Your task to perform on an android device: Open Google Chrome and open the bookmarks view Image 0: 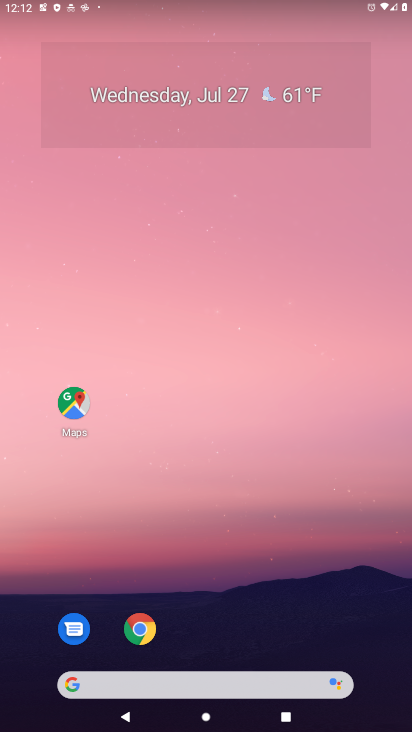
Step 0: click (186, 654)
Your task to perform on an android device: Open Google Chrome and open the bookmarks view Image 1: 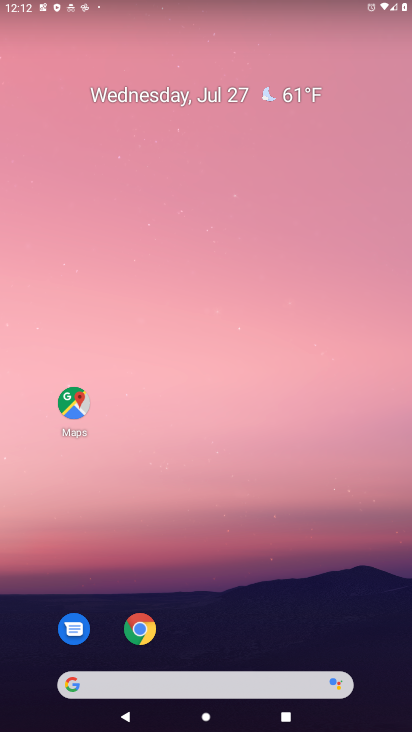
Step 1: drag from (186, 654) to (206, 82)
Your task to perform on an android device: Open Google Chrome and open the bookmarks view Image 2: 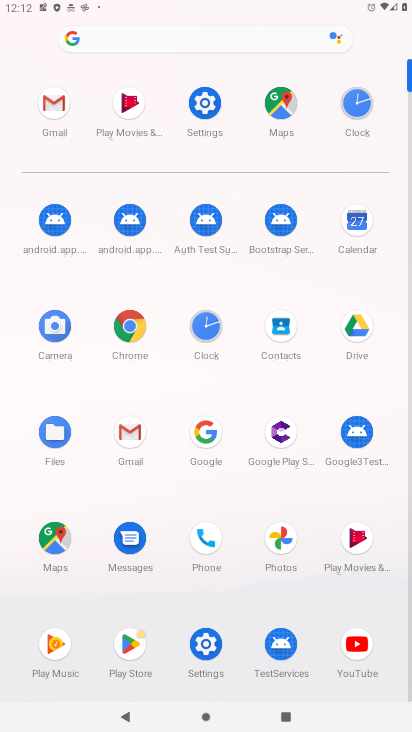
Step 2: click (143, 331)
Your task to perform on an android device: Open Google Chrome and open the bookmarks view Image 3: 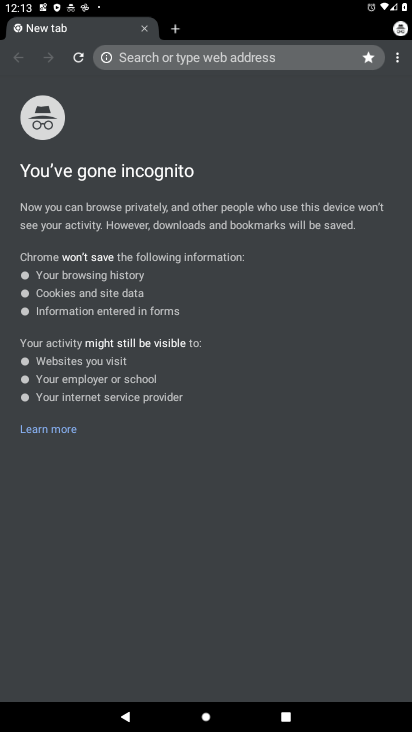
Step 3: task complete